Your task to perform on an android device: all mails in gmail Image 0: 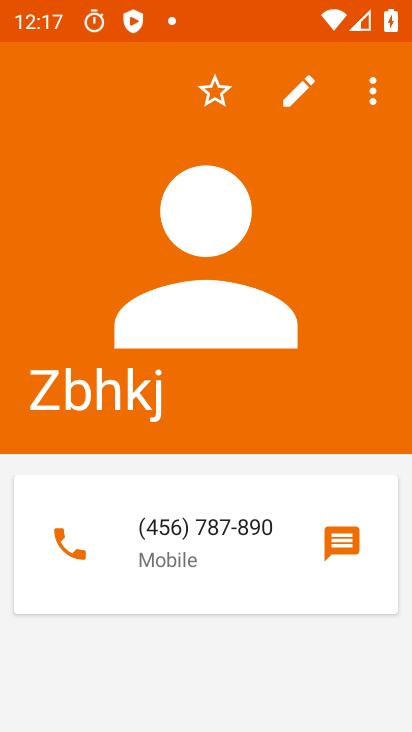
Step 0: press back button
Your task to perform on an android device: all mails in gmail Image 1: 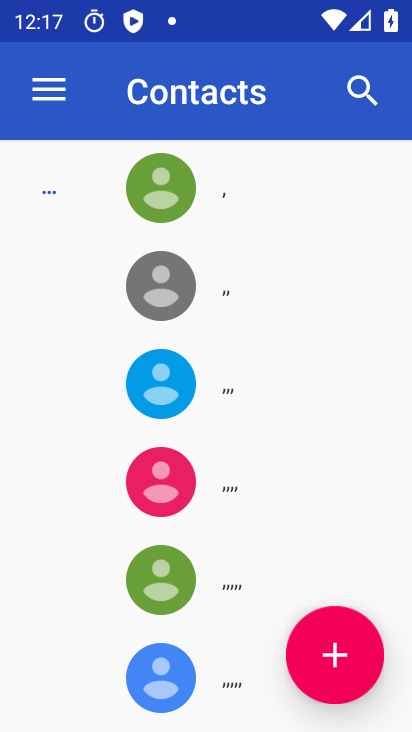
Step 1: press home button
Your task to perform on an android device: all mails in gmail Image 2: 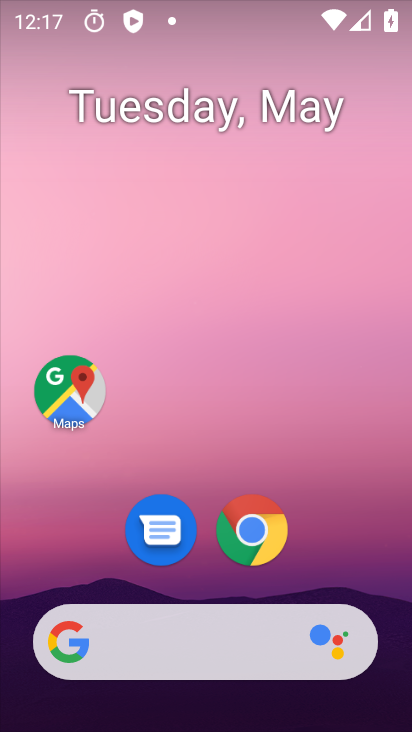
Step 2: drag from (340, 513) to (282, 43)
Your task to perform on an android device: all mails in gmail Image 3: 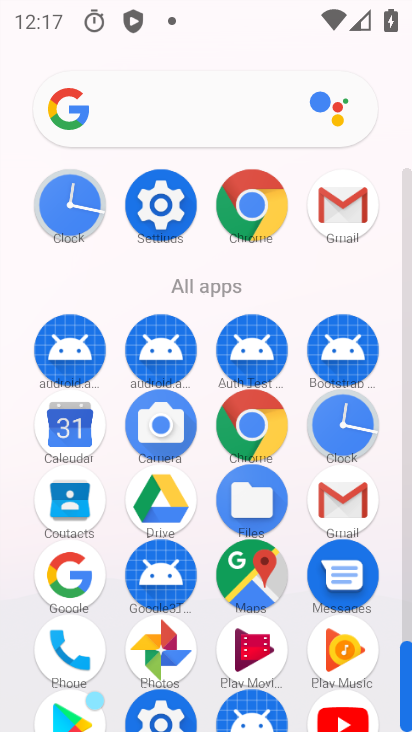
Step 3: click (341, 196)
Your task to perform on an android device: all mails in gmail Image 4: 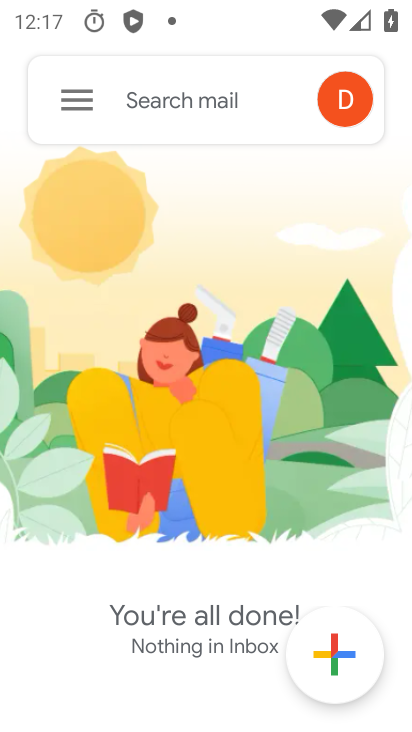
Step 4: click (61, 84)
Your task to perform on an android device: all mails in gmail Image 5: 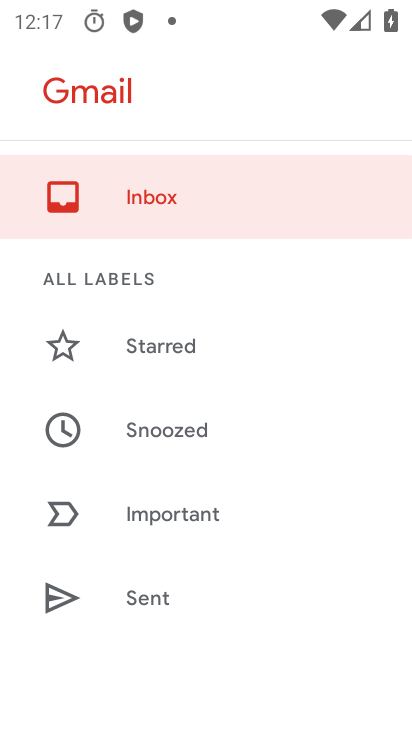
Step 5: drag from (274, 572) to (274, 199)
Your task to perform on an android device: all mails in gmail Image 6: 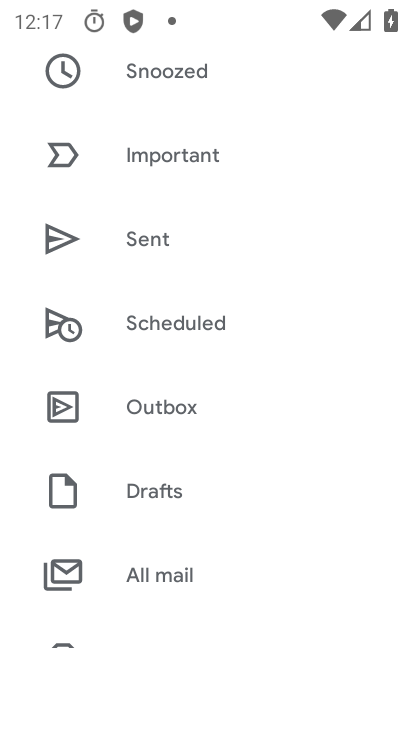
Step 6: click (186, 576)
Your task to perform on an android device: all mails in gmail Image 7: 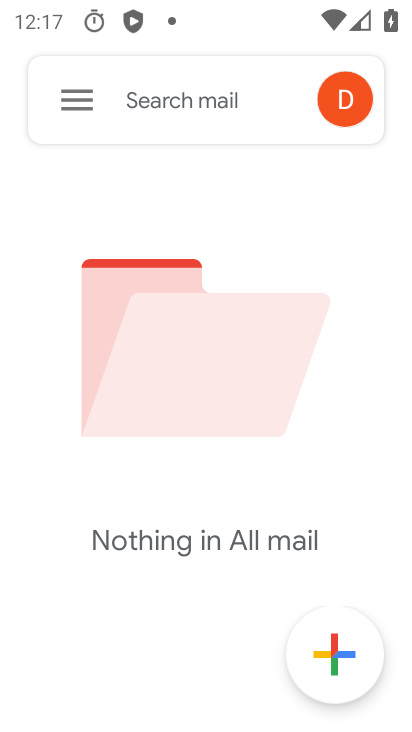
Step 7: click (74, 102)
Your task to perform on an android device: all mails in gmail Image 8: 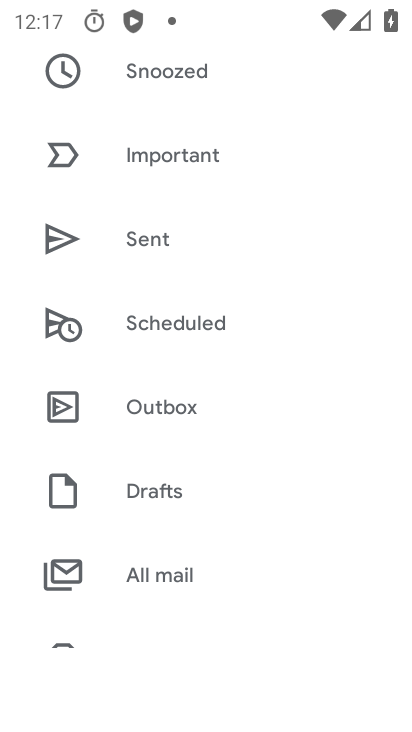
Step 8: click (192, 580)
Your task to perform on an android device: all mails in gmail Image 9: 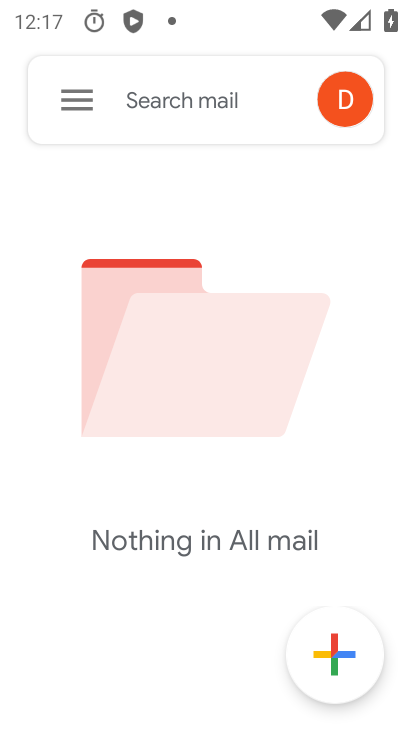
Step 9: task complete